Your task to perform on an android device: Go to eBay Image 0: 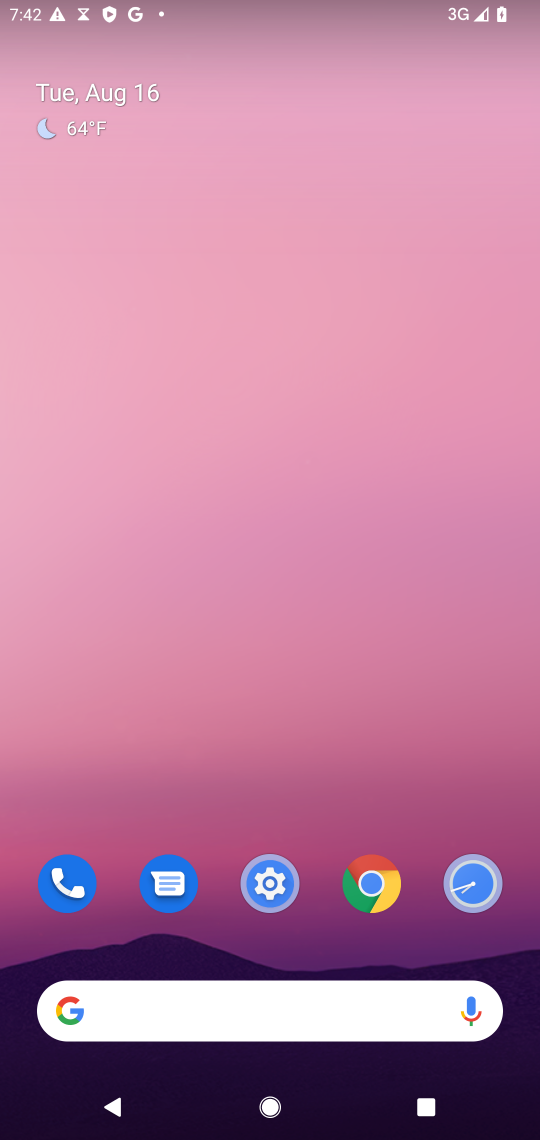
Step 0: click (373, 886)
Your task to perform on an android device: Go to eBay Image 1: 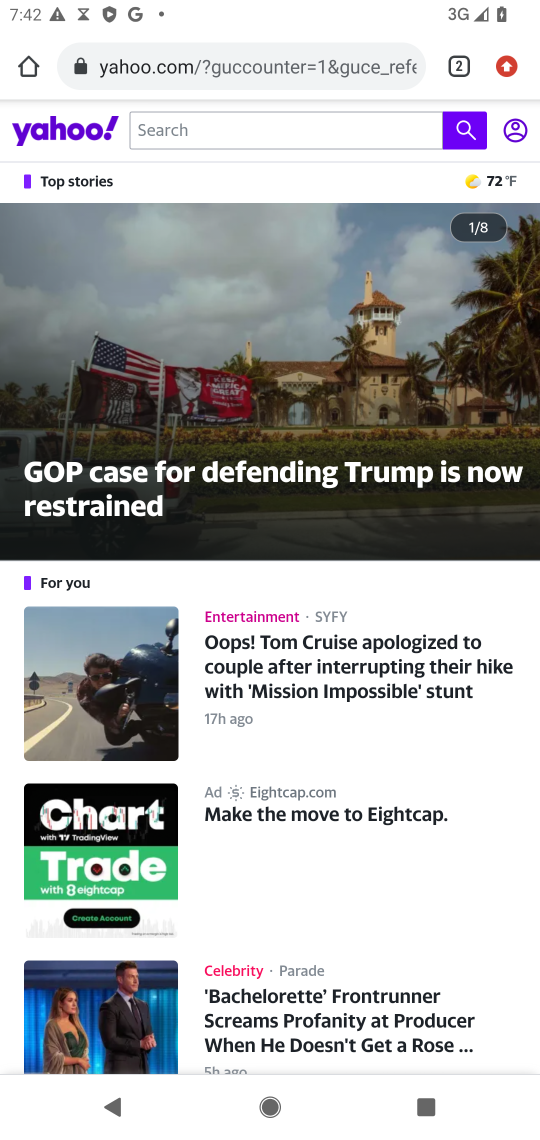
Step 1: click (384, 74)
Your task to perform on an android device: Go to eBay Image 2: 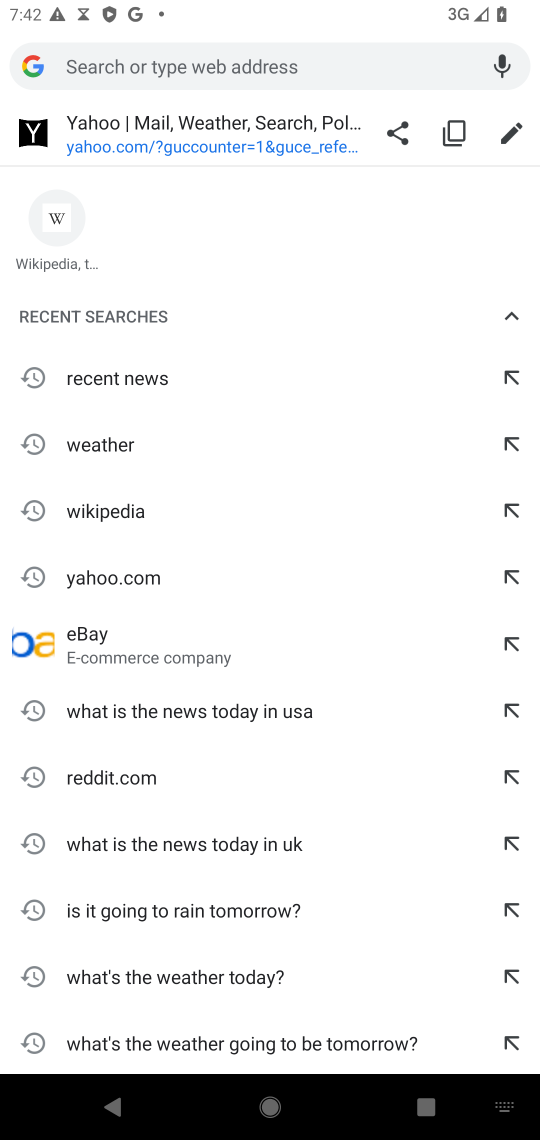
Step 2: click (165, 660)
Your task to perform on an android device: Go to eBay Image 3: 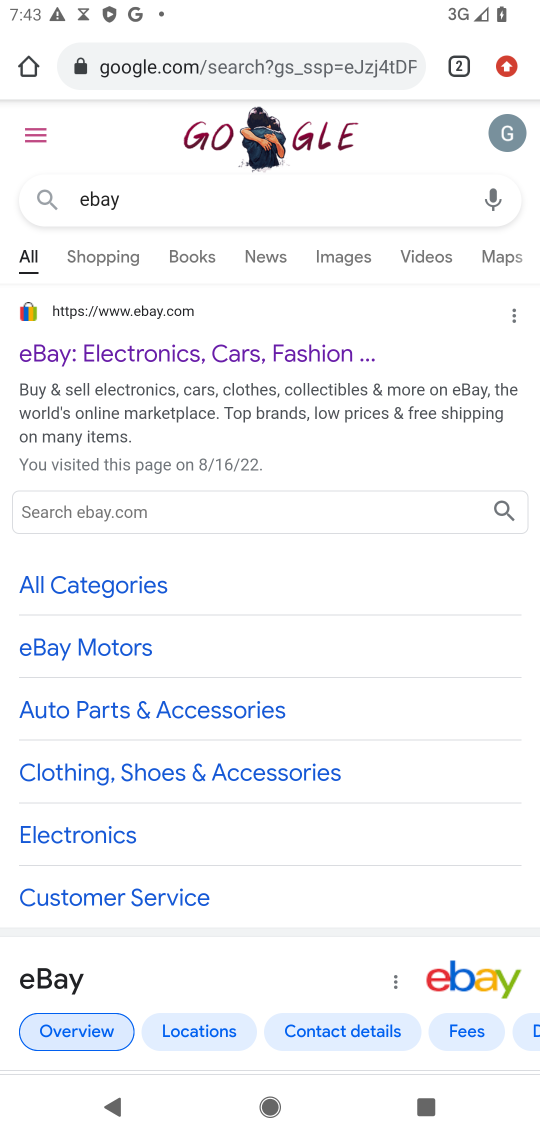
Step 3: click (283, 358)
Your task to perform on an android device: Go to eBay Image 4: 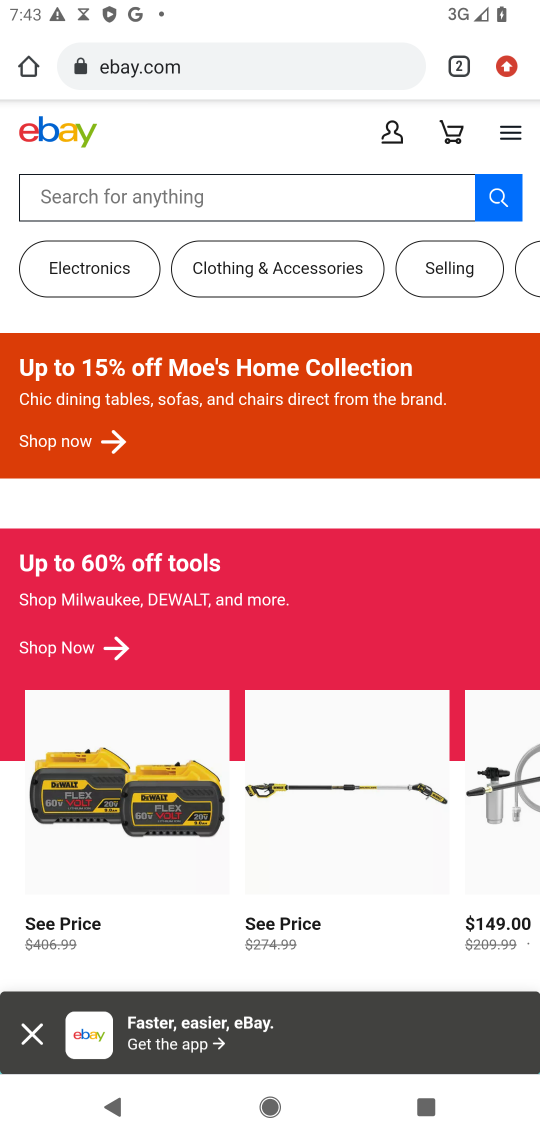
Step 4: task complete